Your task to perform on an android device: Open Google Chrome and click the shortcut for Amazon.com Image 0: 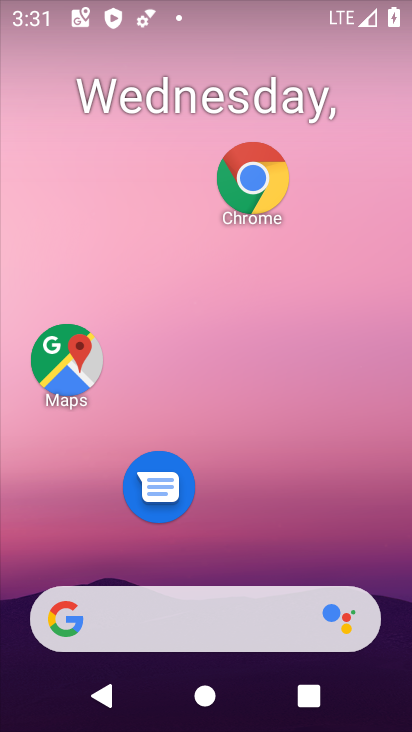
Step 0: click (261, 175)
Your task to perform on an android device: Open Google Chrome and click the shortcut for Amazon.com Image 1: 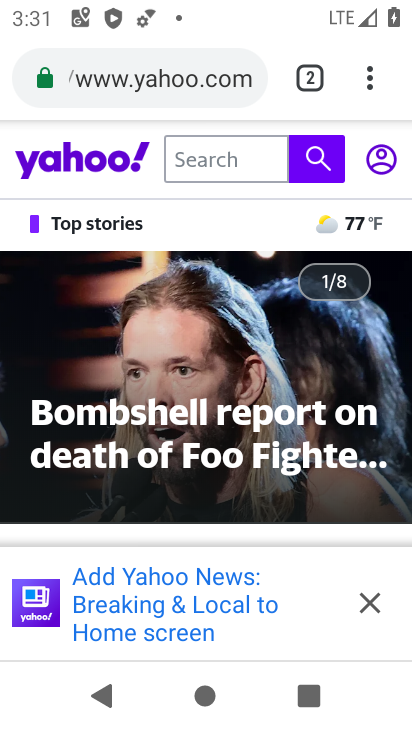
Step 1: click (362, 74)
Your task to perform on an android device: Open Google Chrome and click the shortcut for Amazon.com Image 2: 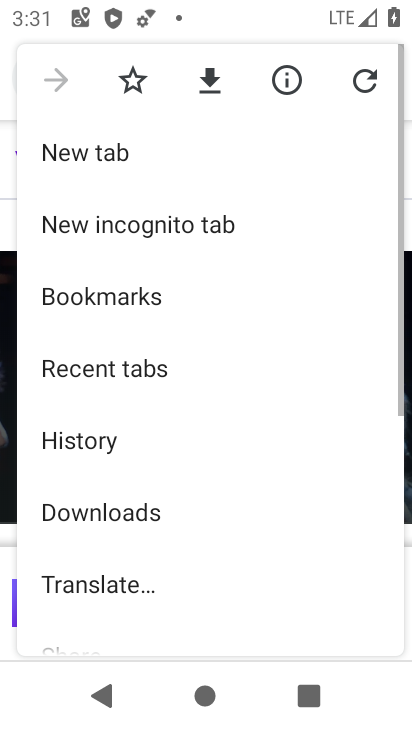
Step 2: click (194, 165)
Your task to perform on an android device: Open Google Chrome and click the shortcut for Amazon.com Image 3: 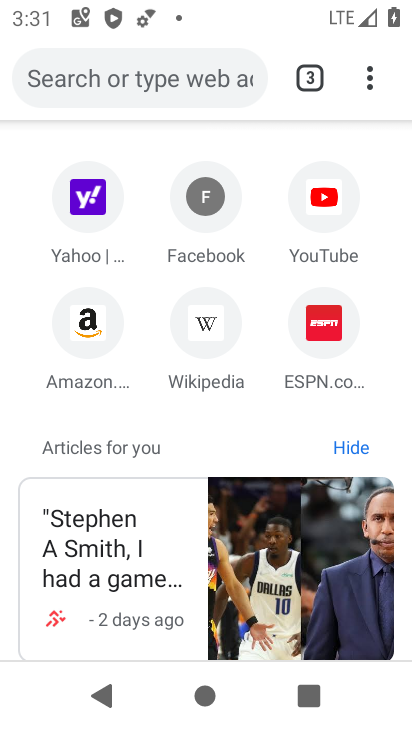
Step 3: click (86, 330)
Your task to perform on an android device: Open Google Chrome and click the shortcut for Amazon.com Image 4: 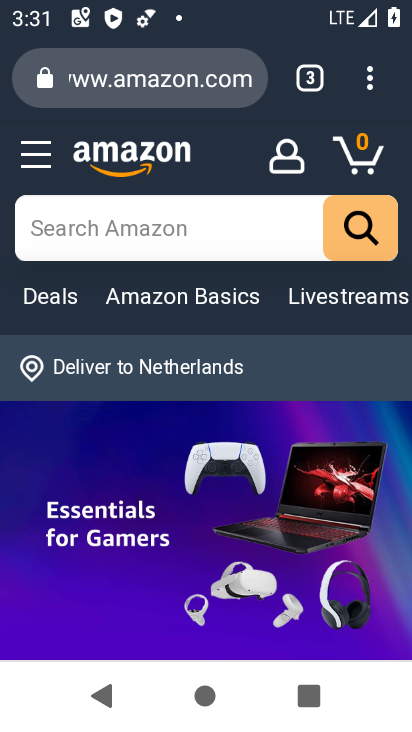
Step 4: task complete